Your task to perform on an android device: Search for Mexican restaurants on Maps Image 0: 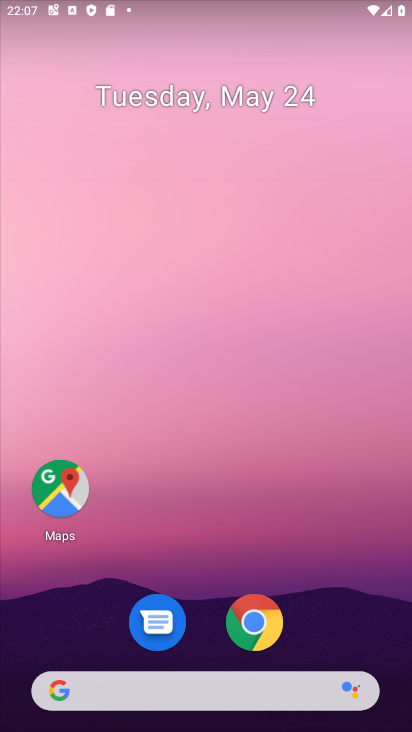
Step 0: drag from (252, 703) to (290, 4)
Your task to perform on an android device: Search for Mexican restaurants on Maps Image 1: 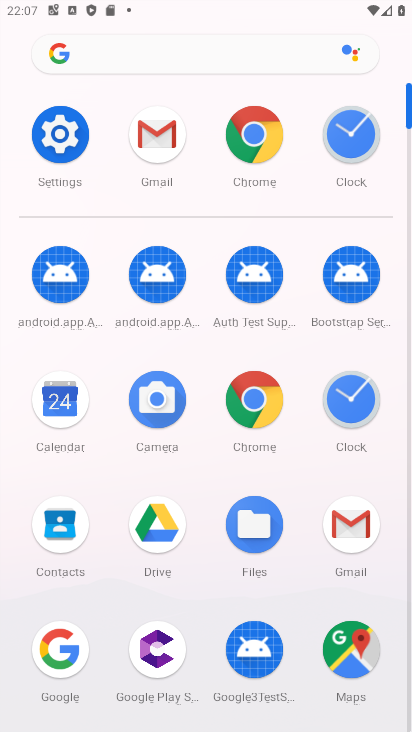
Step 1: click (346, 651)
Your task to perform on an android device: Search for Mexican restaurants on Maps Image 2: 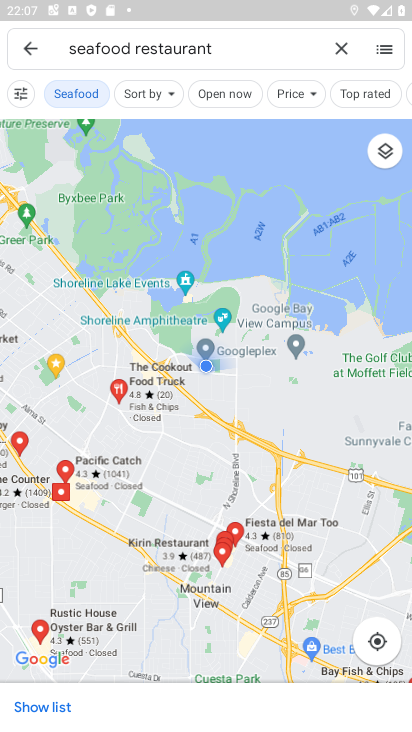
Step 2: click (342, 46)
Your task to perform on an android device: Search for Mexican restaurants on Maps Image 3: 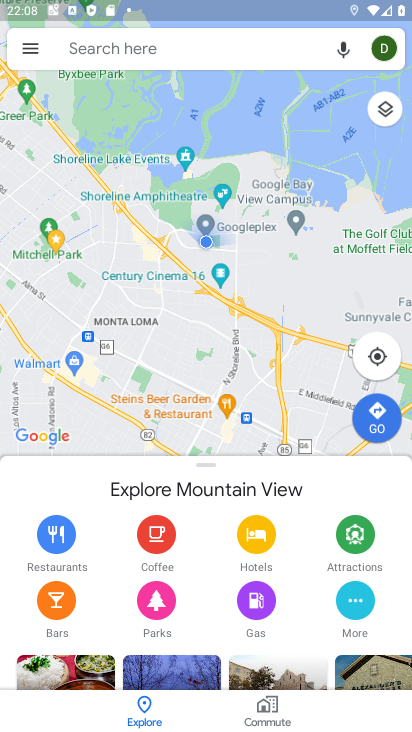
Step 3: click (119, 40)
Your task to perform on an android device: Search for Mexican restaurants on Maps Image 4: 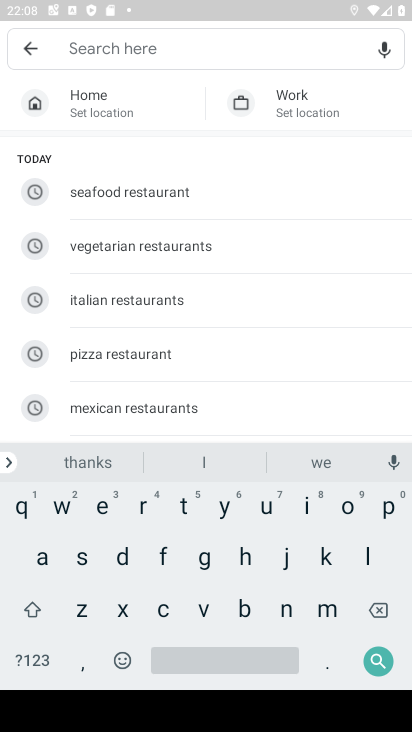
Step 4: click (117, 402)
Your task to perform on an android device: Search for Mexican restaurants on Maps Image 5: 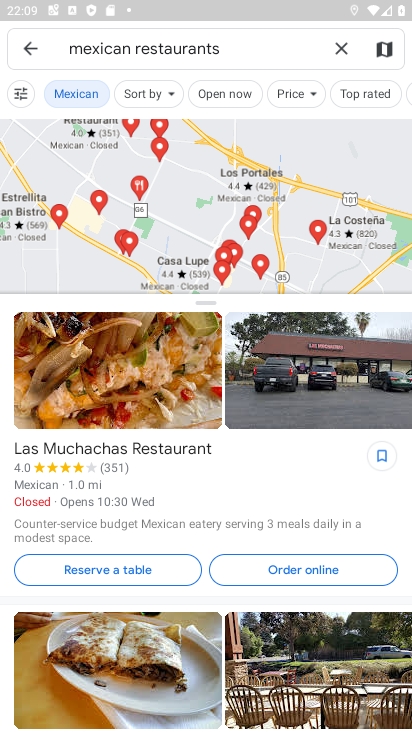
Step 5: task complete